Your task to perform on an android device: Open privacy settings Image 0: 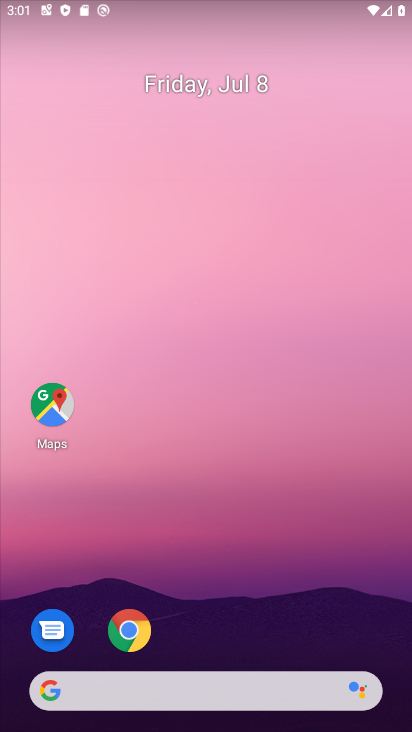
Step 0: drag from (303, 634) to (277, 186)
Your task to perform on an android device: Open privacy settings Image 1: 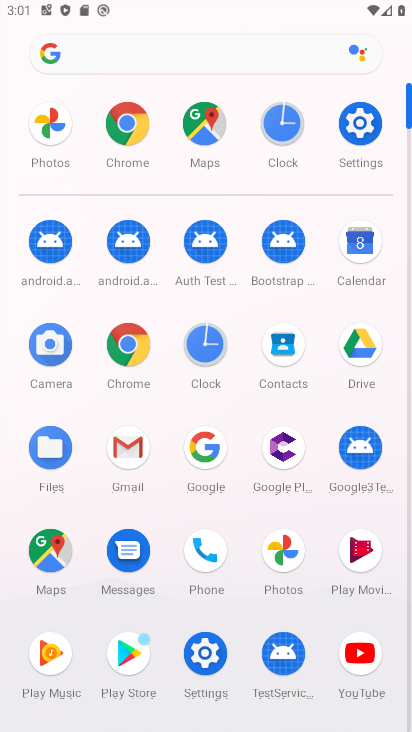
Step 1: click (341, 162)
Your task to perform on an android device: Open privacy settings Image 2: 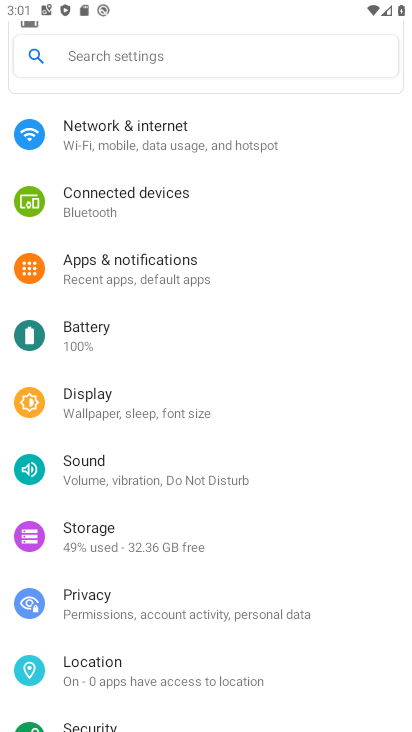
Step 2: drag from (169, 547) to (142, 322)
Your task to perform on an android device: Open privacy settings Image 3: 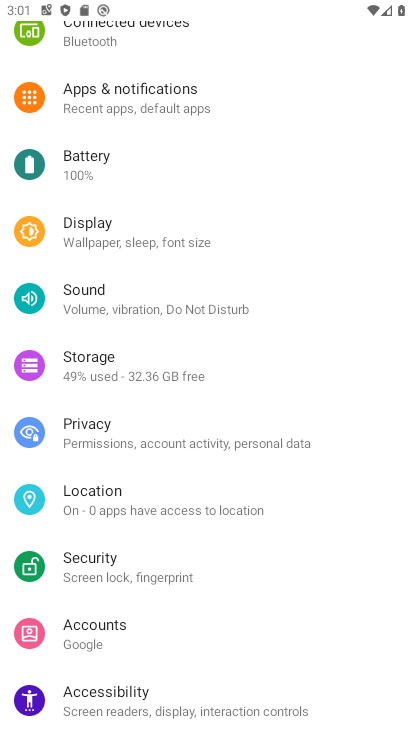
Step 3: click (142, 451)
Your task to perform on an android device: Open privacy settings Image 4: 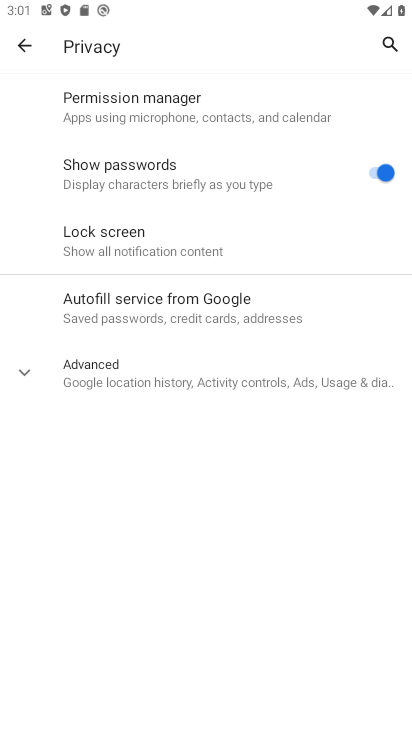
Step 4: click (165, 388)
Your task to perform on an android device: Open privacy settings Image 5: 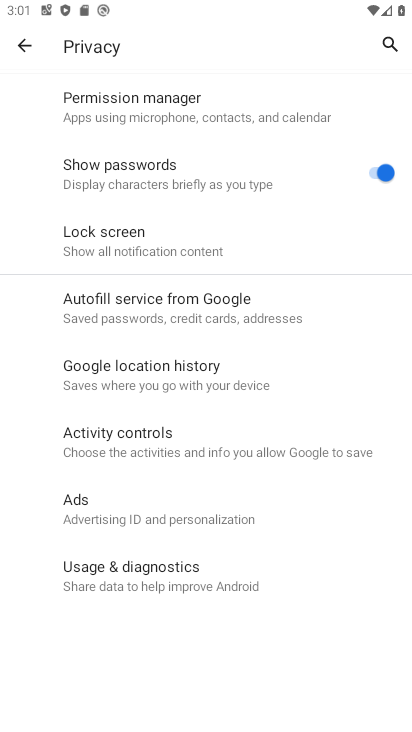
Step 5: click (25, 42)
Your task to perform on an android device: Open privacy settings Image 6: 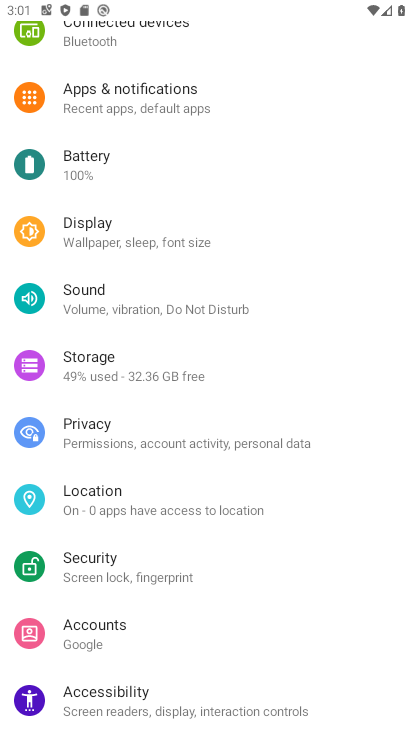
Step 6: click (136, 428)
Your task to perform on an android device: Open privacy settings Image 7: 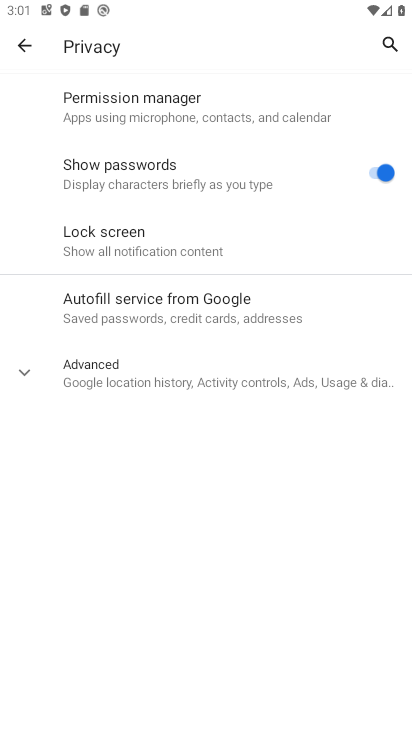
Step 7: task complete